Your task to perform on an android device: Add razer thresher to the cart on ebay Image 0: 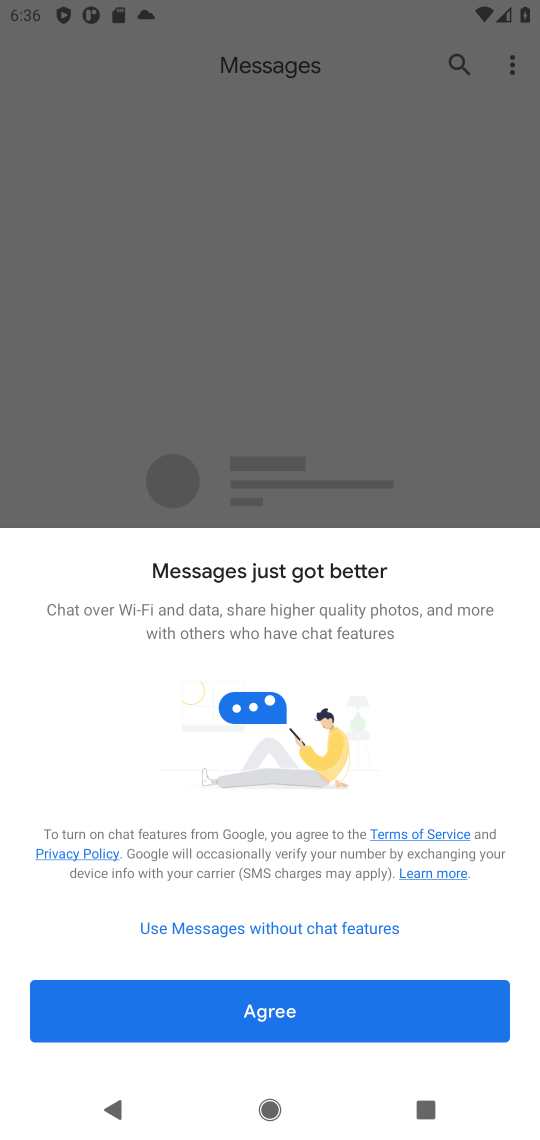
Step 0: press home button
Your task to perform on an android device: Add razer thresher to the cart on ebay Image 1: 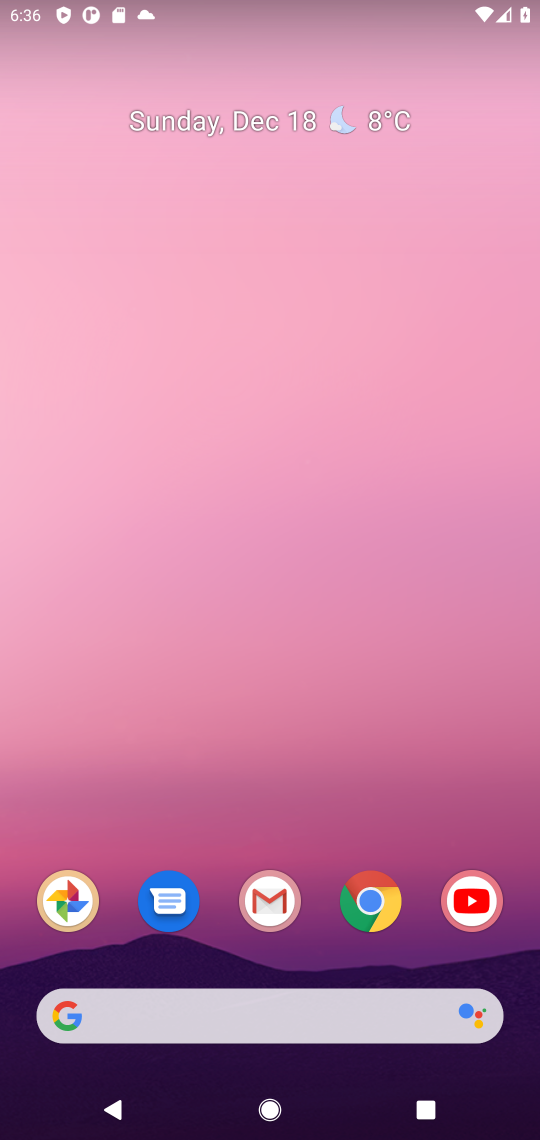
Step 1: click (376, 925)
Your task to perform on an android device: Add razer thresher to the cart on ebay Image 2: 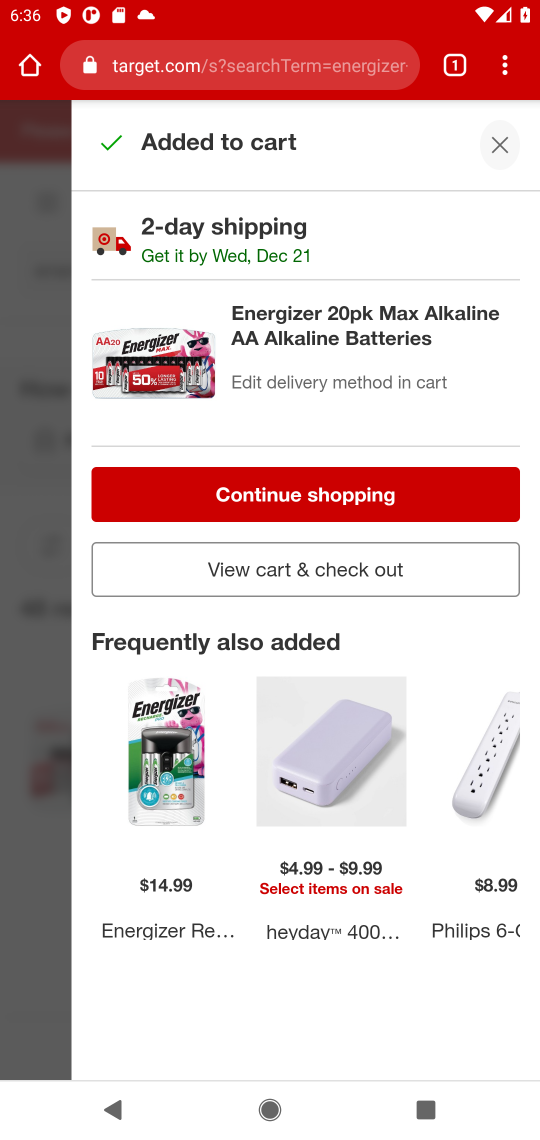
Step 2: click (480, 157)
Your task to perform on an android device: Add razer thresher to the cart on ebay Image 3: 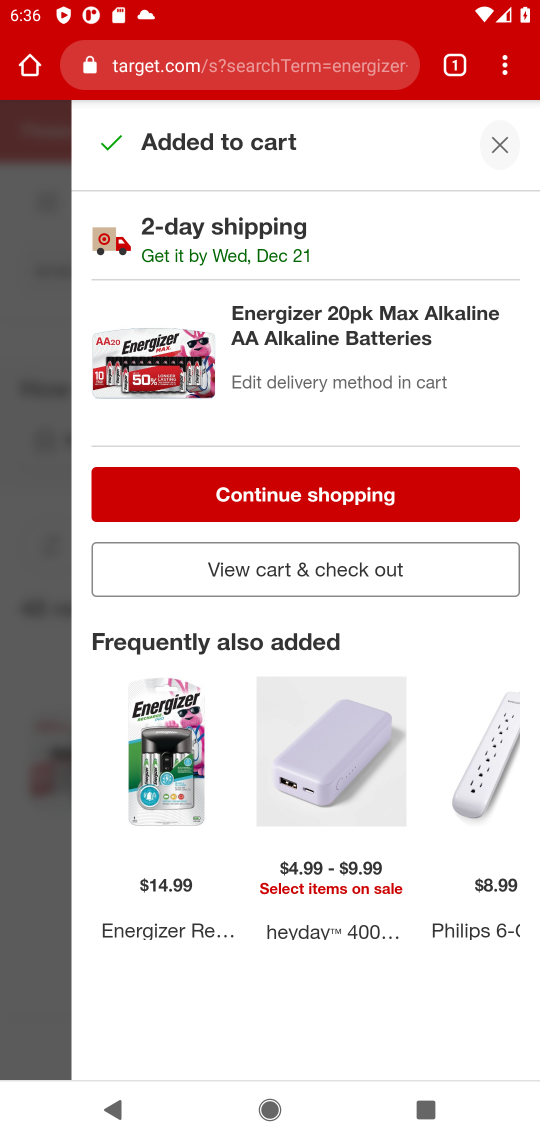
Step 3: click (506, 141)
Your task to perform on an android device: Add razer thresher to the cart on ebay Image 4: 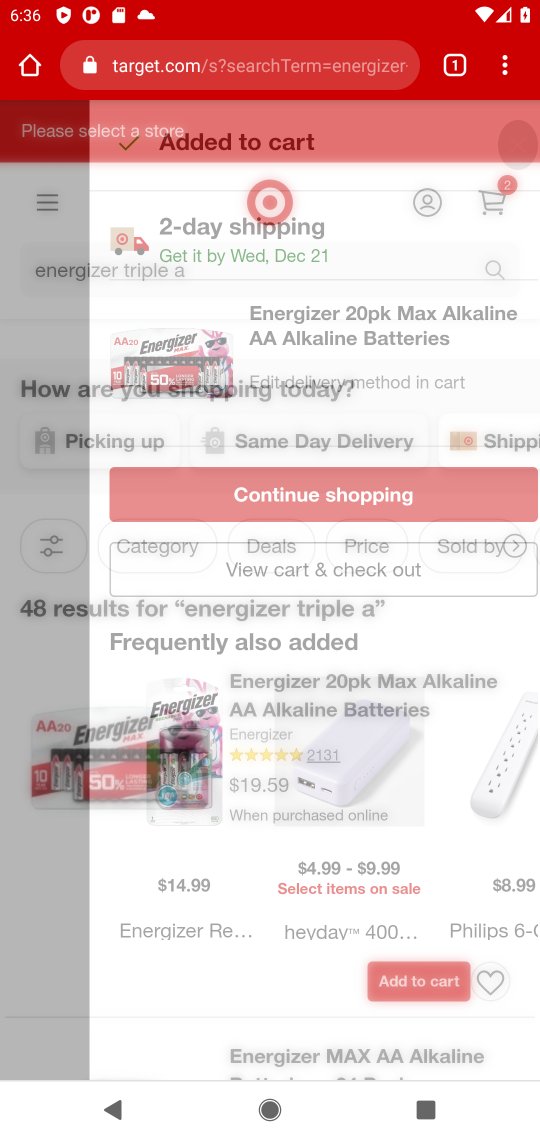
Step 4: click (253, 76)
Your task to perform on an android device: Add razer thresher to the cart on ebay Image 5: 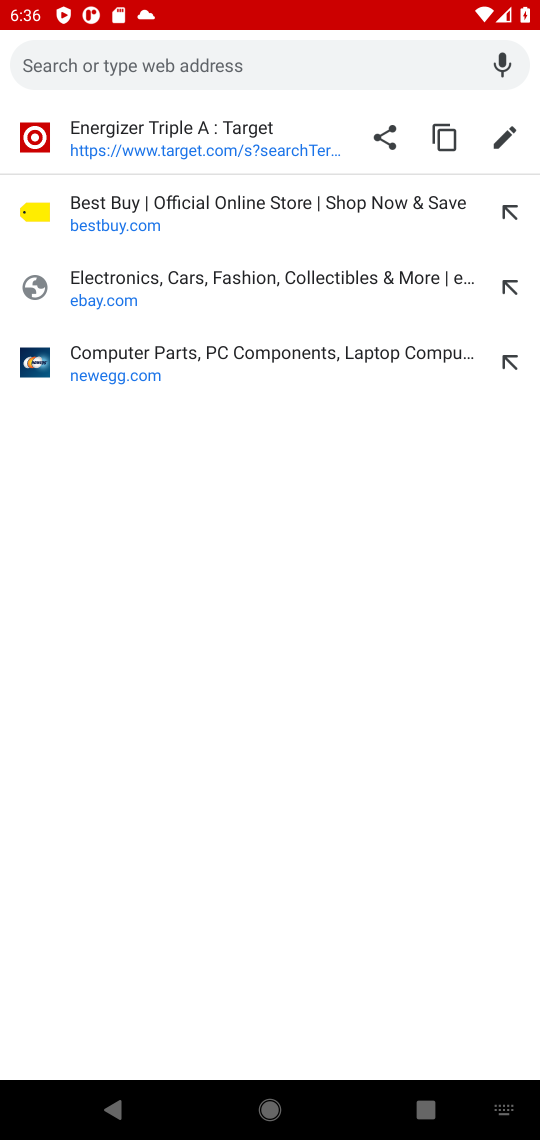
Step 5: click (184, 290)
Your task to perform on an android device: Add razer thresher to the cart on ebay Image 6: 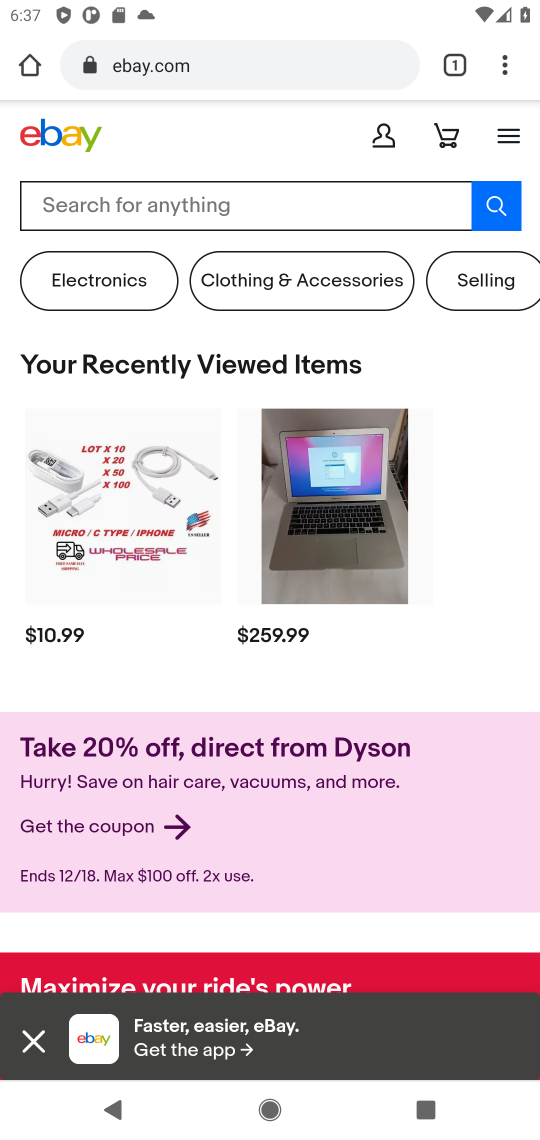
Step 6: click (456, 148)
Your task to perform on an android device: Add razer thresher to the cart on ebay Image 7: 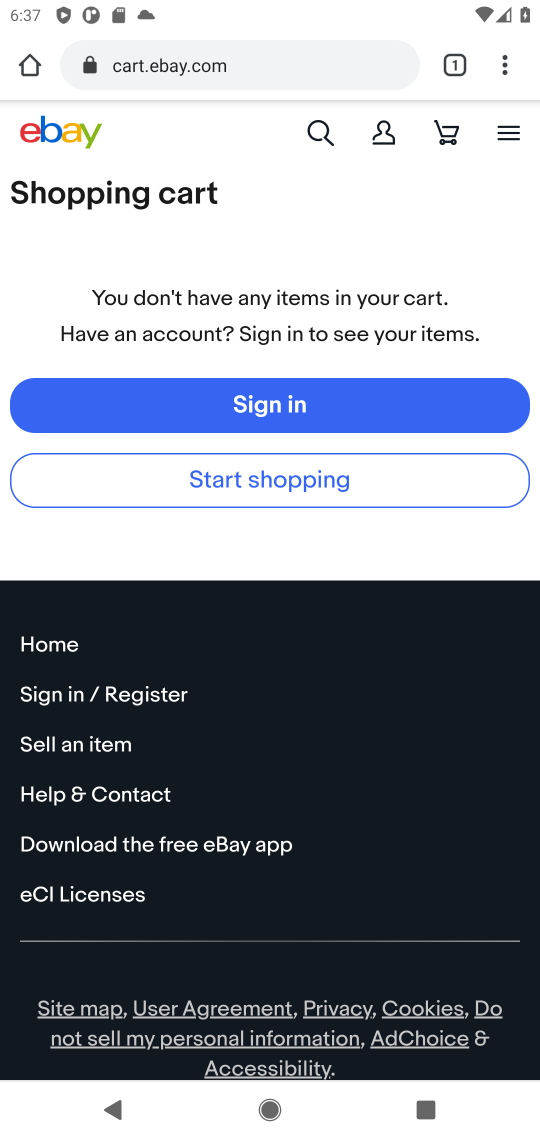
Step 7: click (318, 135)
Your task to perform on an android device: Add razer thresher to the cart on ebay Image 8: 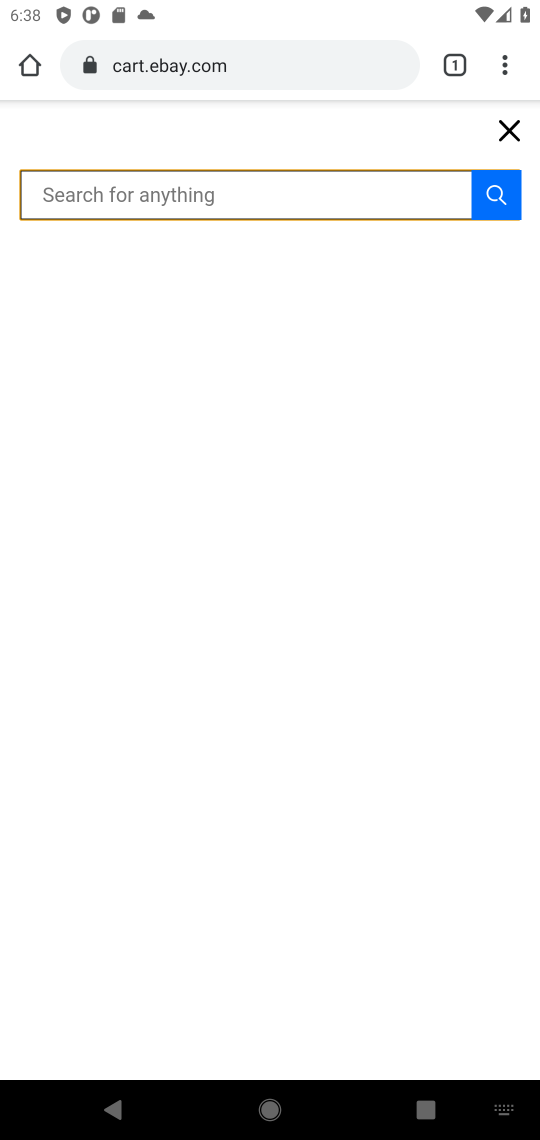
Step 8: type "razer thresher"
Your task to perform on an android device: Add razer thresher to the cart on ebay Image 9: 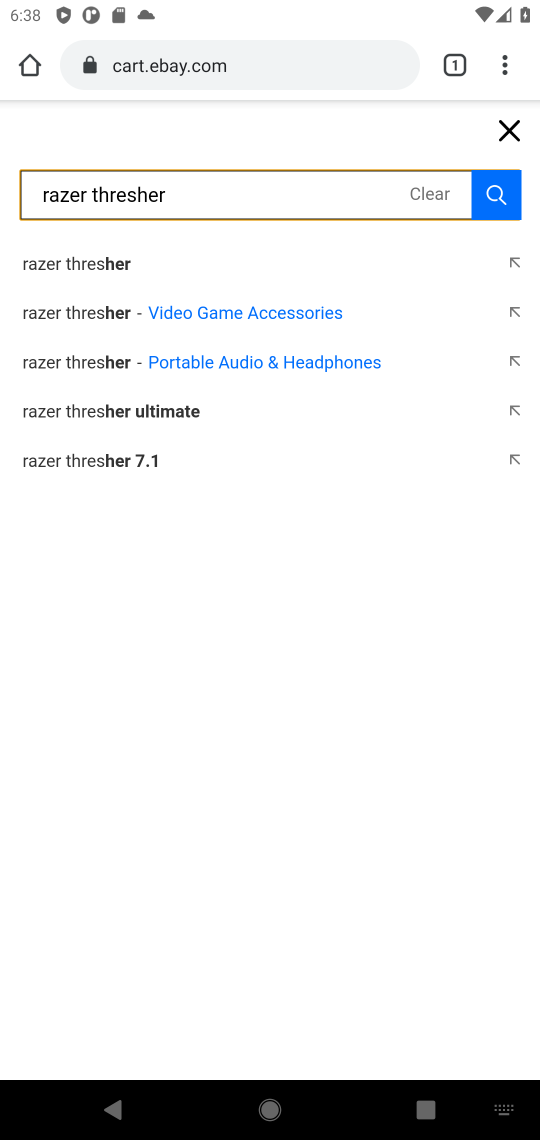
Step 9: click (113, 262)
Your task to perform on an android device: Add razer thresher to the cart on ebay Image 10: 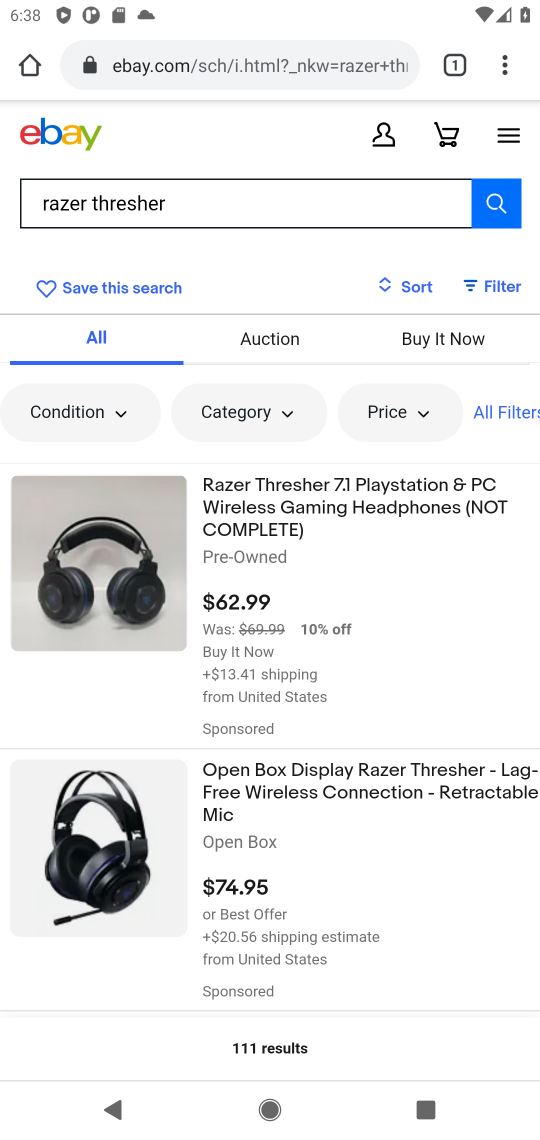
Step 10: click (241, 546)
Your task to perform on an android device: Add razer thresher to the cart on ebay Image 11: 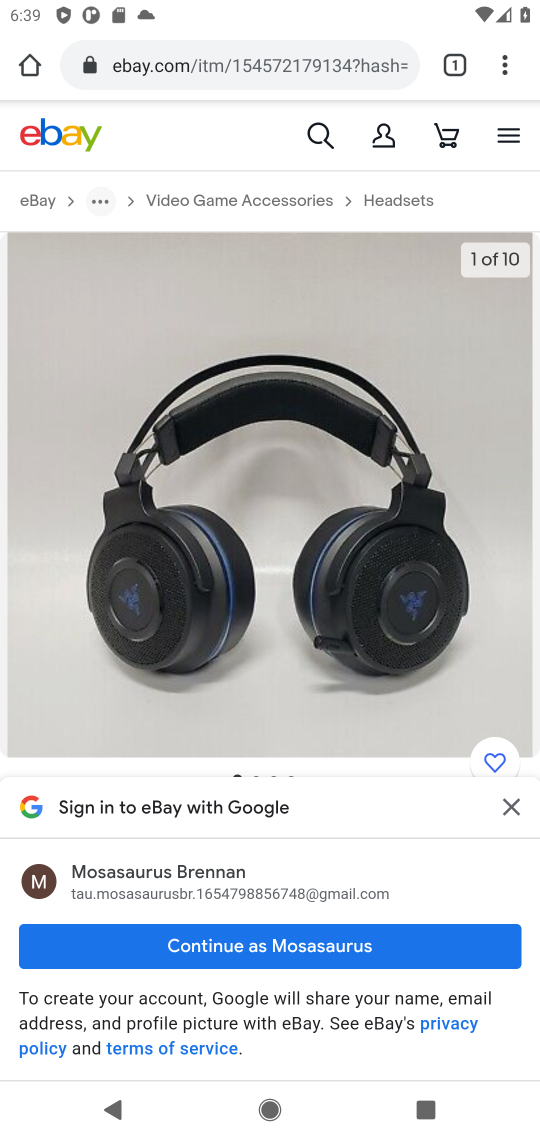
Step 11: click (406, 932)
Your task to perform on an android device: Add razer thresher to the cart on ebay Image 12: 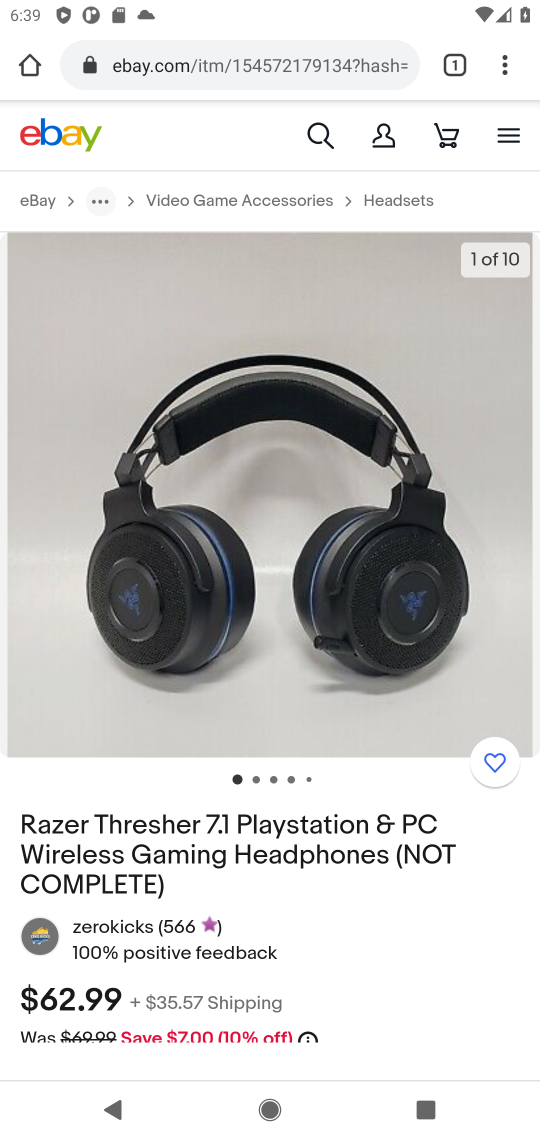
Step 12: task complete